Your task to perform on an android device: open app "Speedtest by Ookla" (install if not already installed) Image 0: 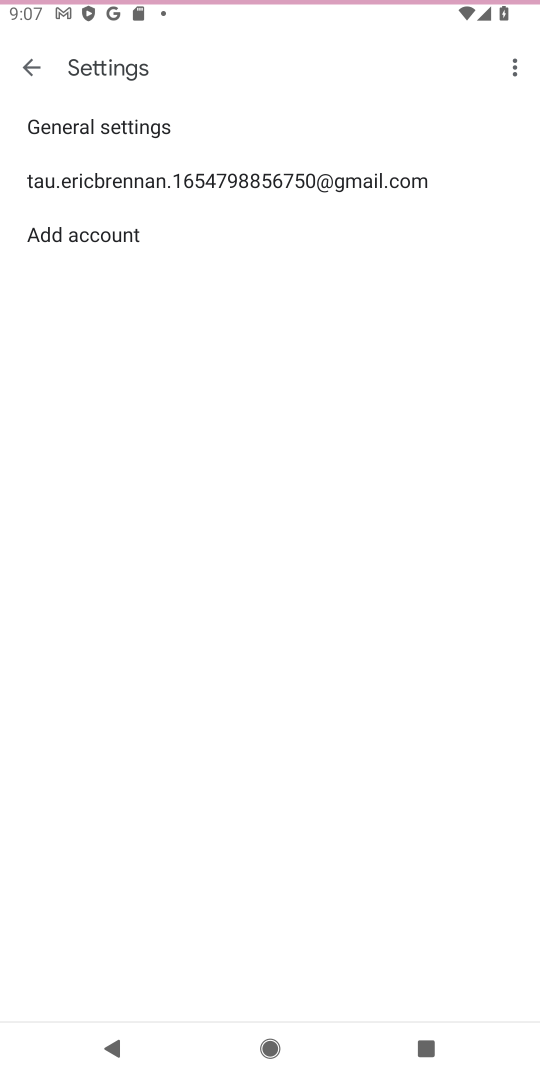
Step 0: press back button
Your task to perform on an android device: open app "Speedtest by Ookla" (install if not already installed) Image 1: 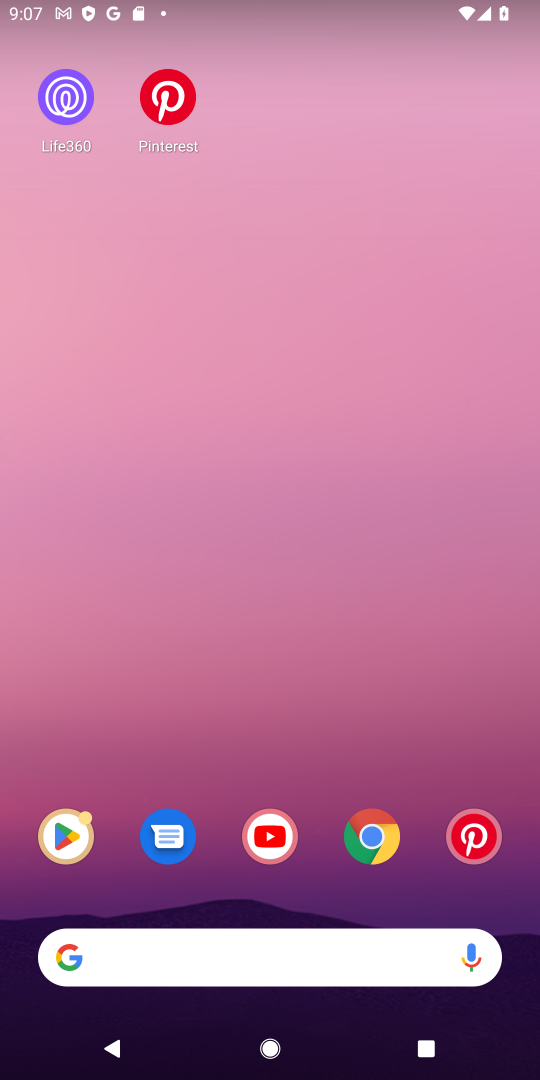
Step 1: click (191, 203)
Your task to perform on an android device: open app "Speedtest by Ookla" (install if not already installed) Image 2: 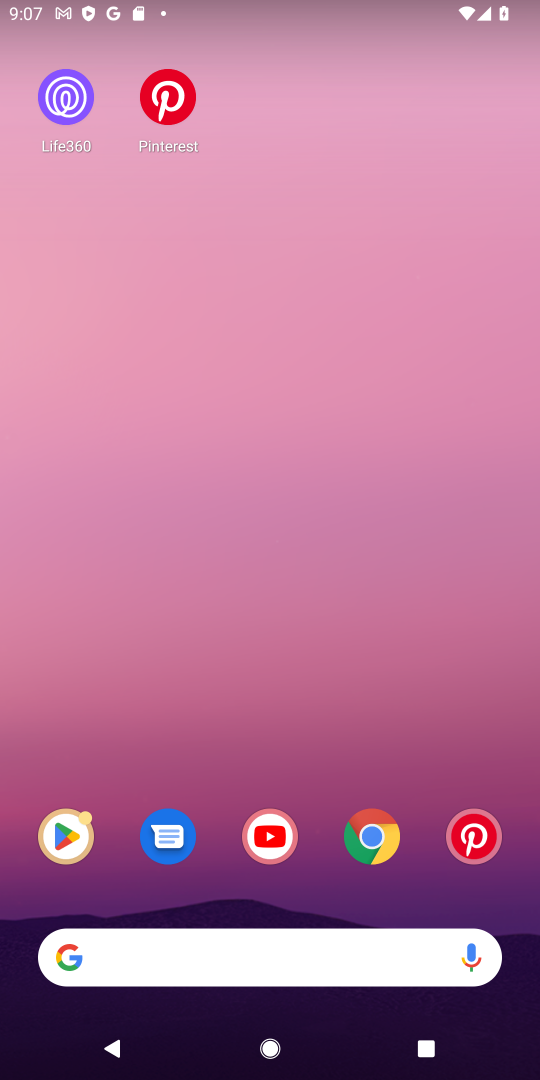
Step 2: drag from (336, 826) to (267, 335)
Your task to perform on an android device: open app "Speedtest by Ookla" (install if not already installed) Image 3: 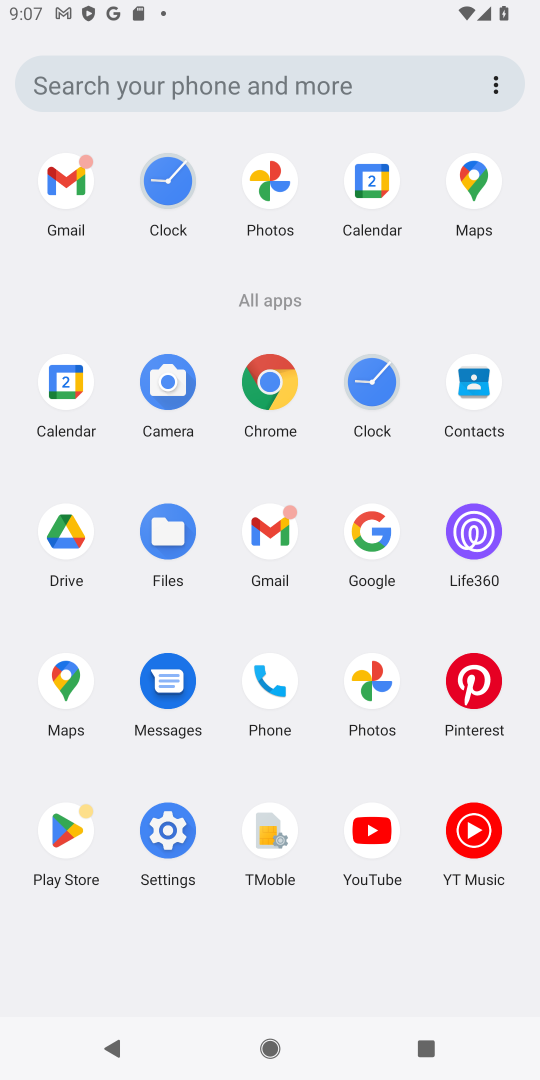
Step 3: click (62, 837)
Your task to perform on an android device: open app "Speedtest by Ookla" (install if not already installed) Image 4: 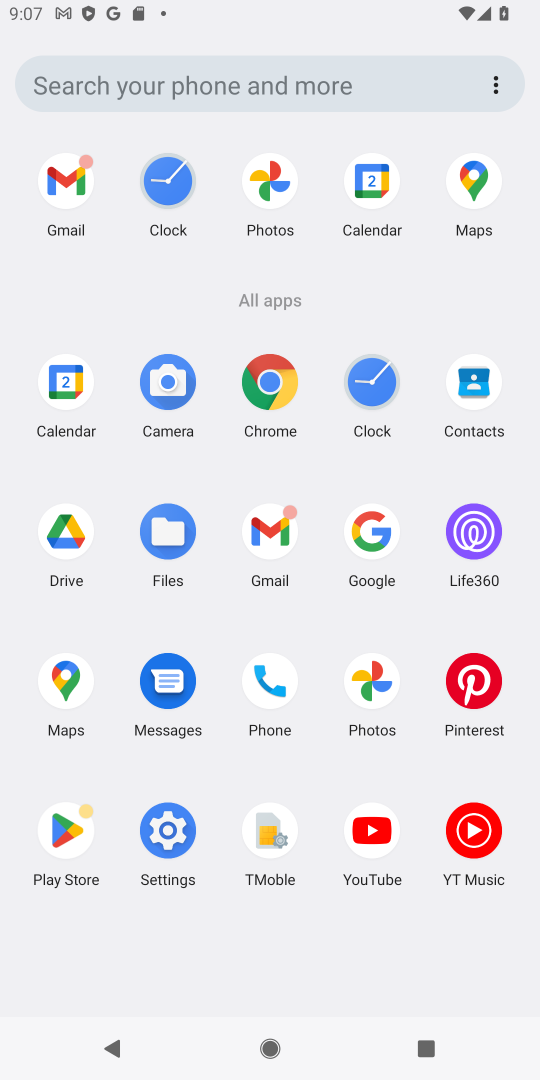
Step 4: click (62, 837)
Your task to perform on an android device: open app "Speedtest by Ookla" (install if not already installed) Image 5: 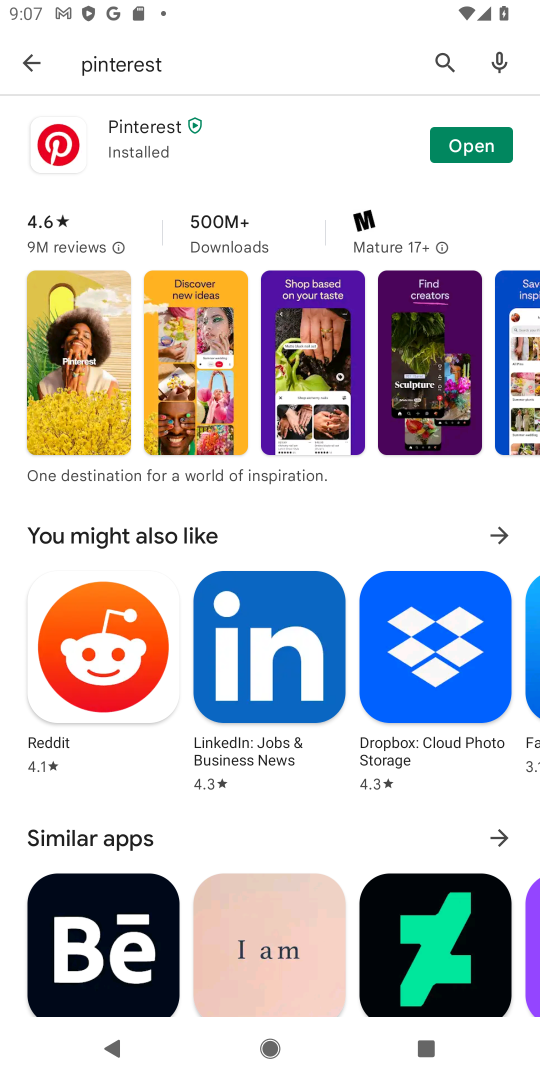
Step 5: click (30, 61)
Your task to perform on an android device: open app "Speedtest by Ookla" (install if not already installed) Image 6: 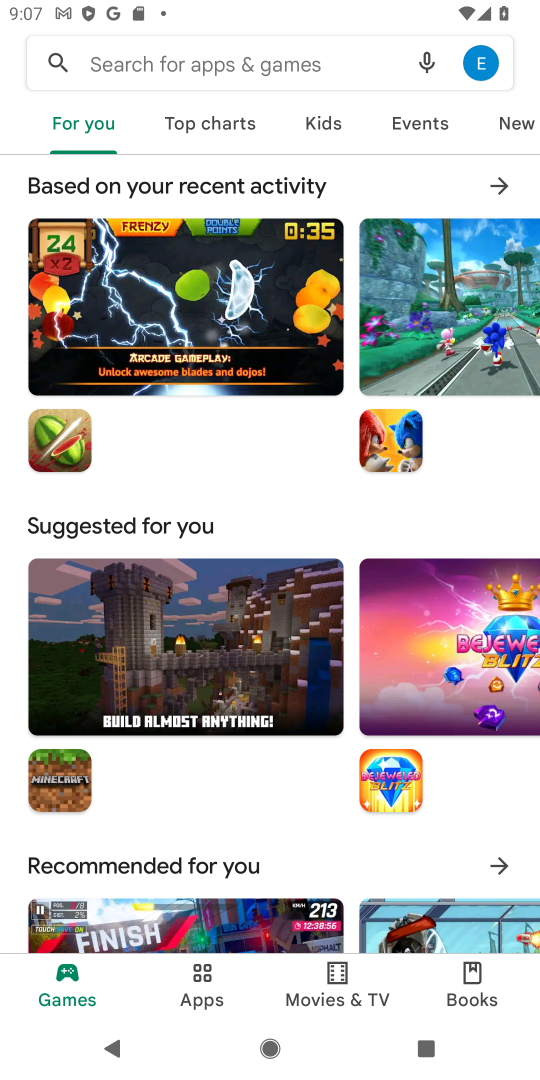
Step 6: click (105, 63)
Your task to perform on an android device: open app "Speedtest by Ookla" (install if not already installed) Image 7: 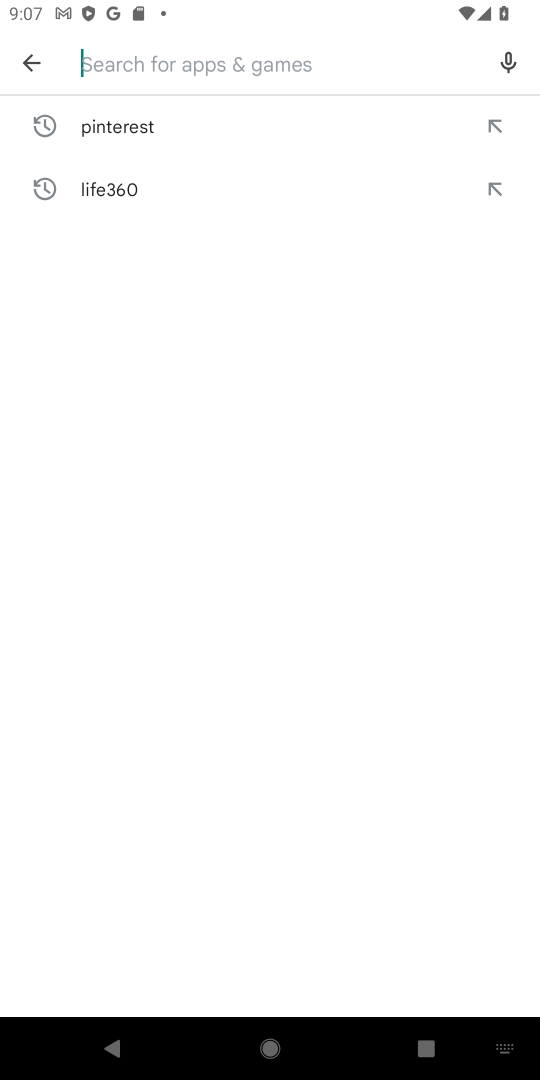
Step 7: type "speedtest"
Your task to perform on an android device: open app "Speedtest by Ookla" (install if not already installed) Image 8: 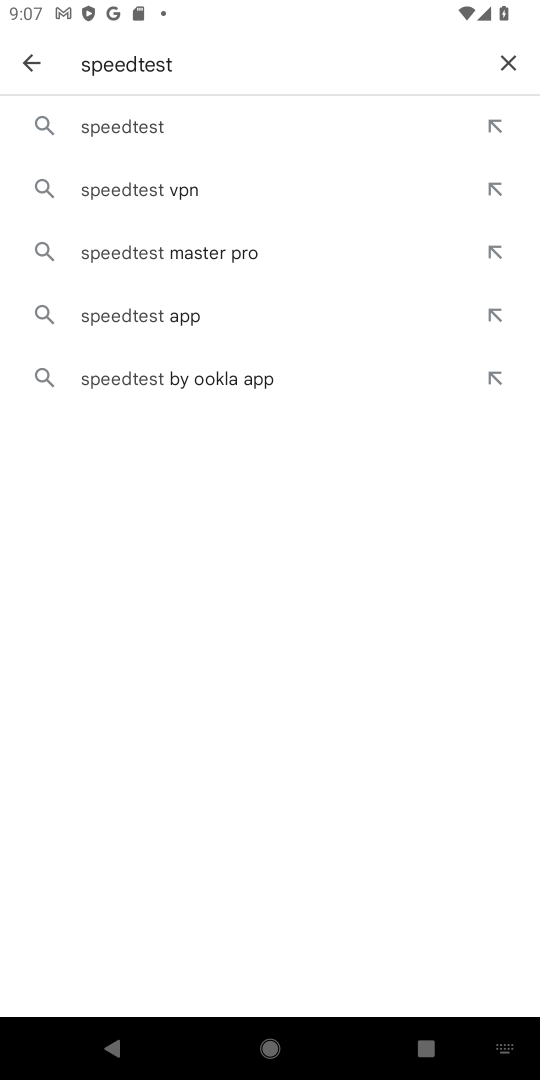
Step 8: click (141, 117)
Your task to perform on an android device: open app "Speedtest by Ookla" (install if not already installed) Image 9: 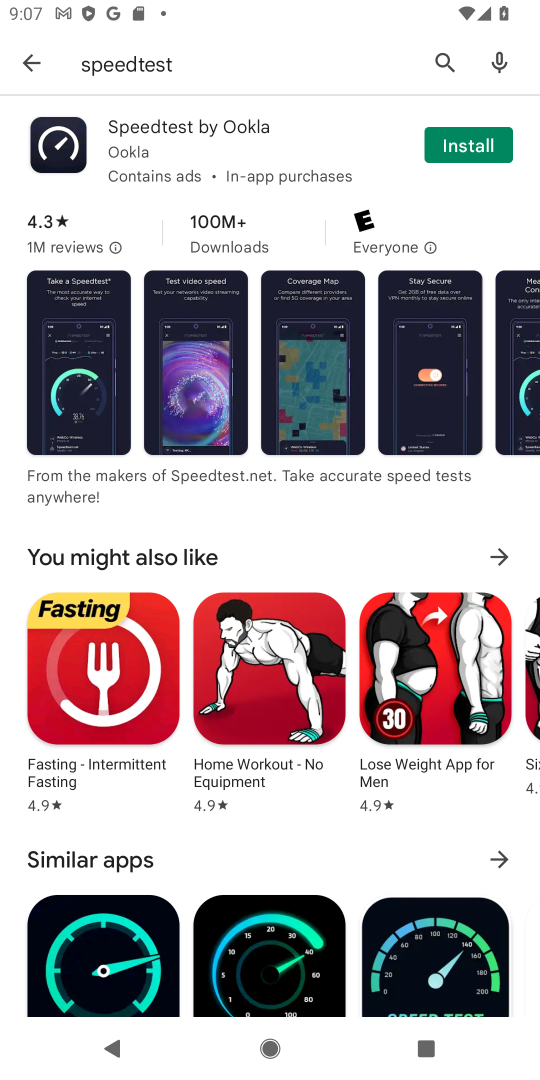
Step 9: click (454, 151)
Your task to perform on an android device: open app "Speedtest by Ookla" (install if not already installed) Image 10: 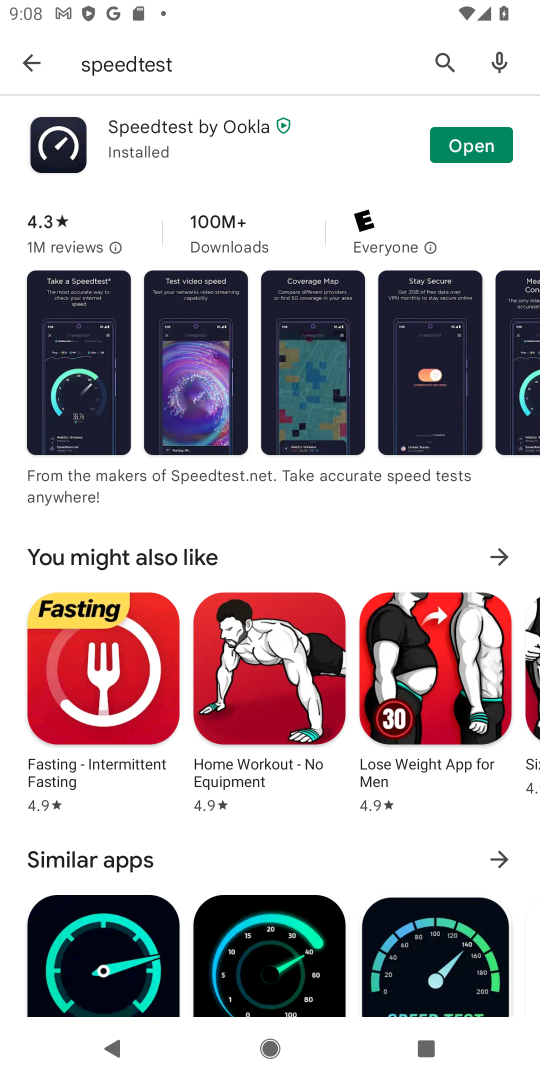
Step 10: click (466, 143)
Your task to perform on an android device: open app "Speedtest by Ookla" (install if not already installed) Image 11: 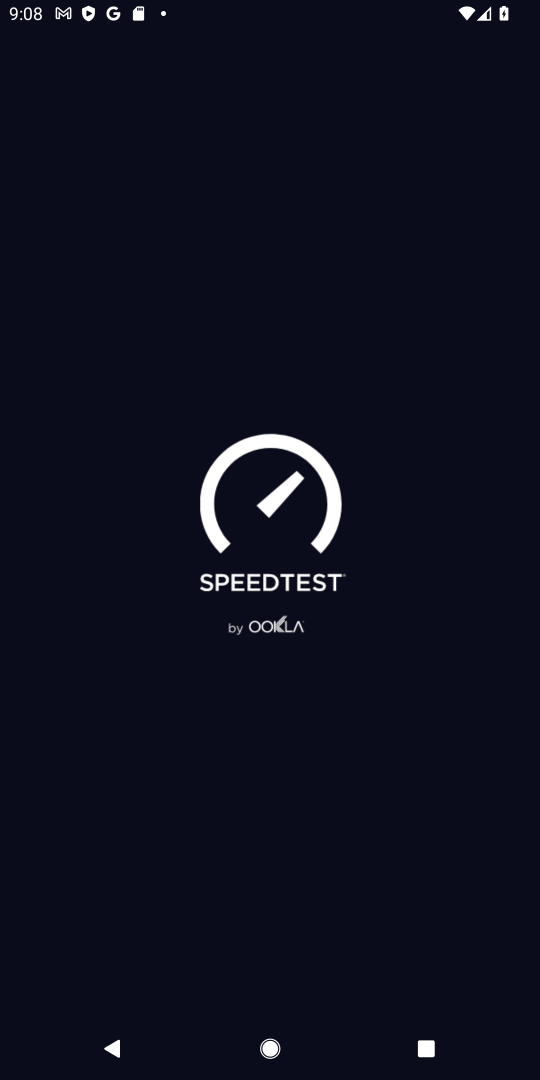
Step 11: task complete